Your task to perform on an android device: check the backup settings in the google photos Image 0: 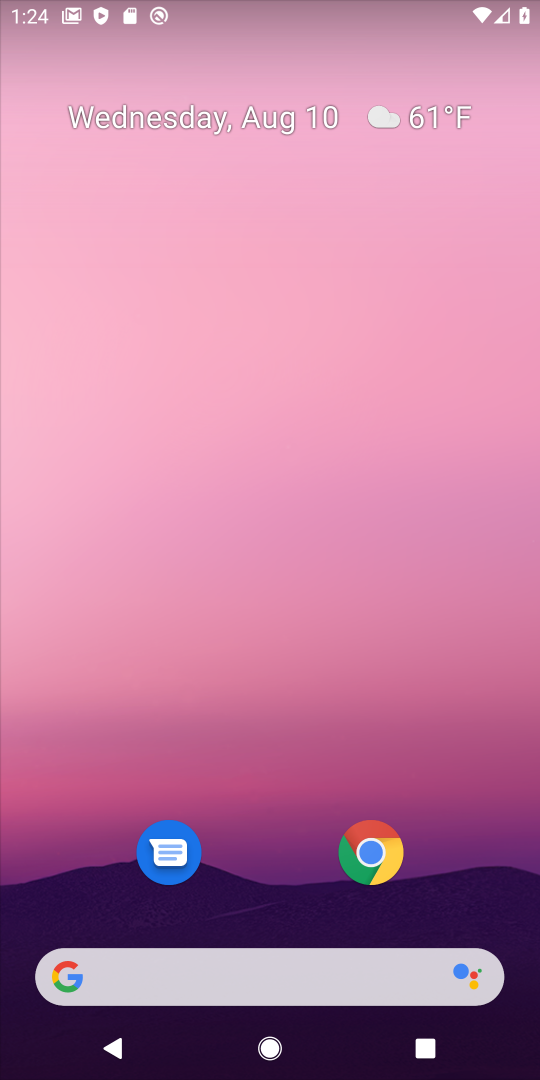
Step 0: drag from (304, 760) to (307, 54)
Your task to perform on an android device: check the backup settings in the google photos Image 1: 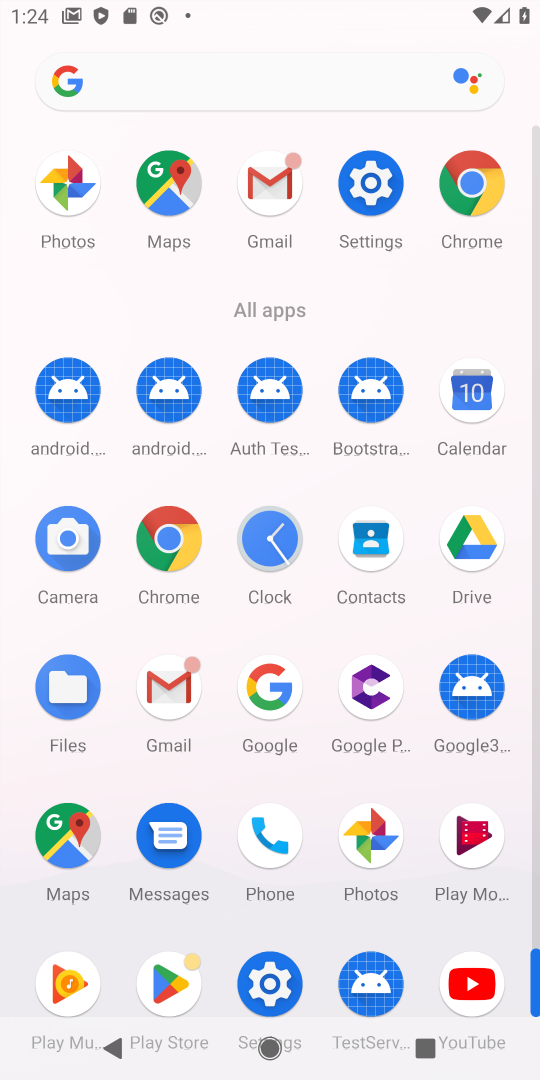
Step 1: click (361, 835)
Your task to perform on an android device: check the backup settings in the google photos Image 2: 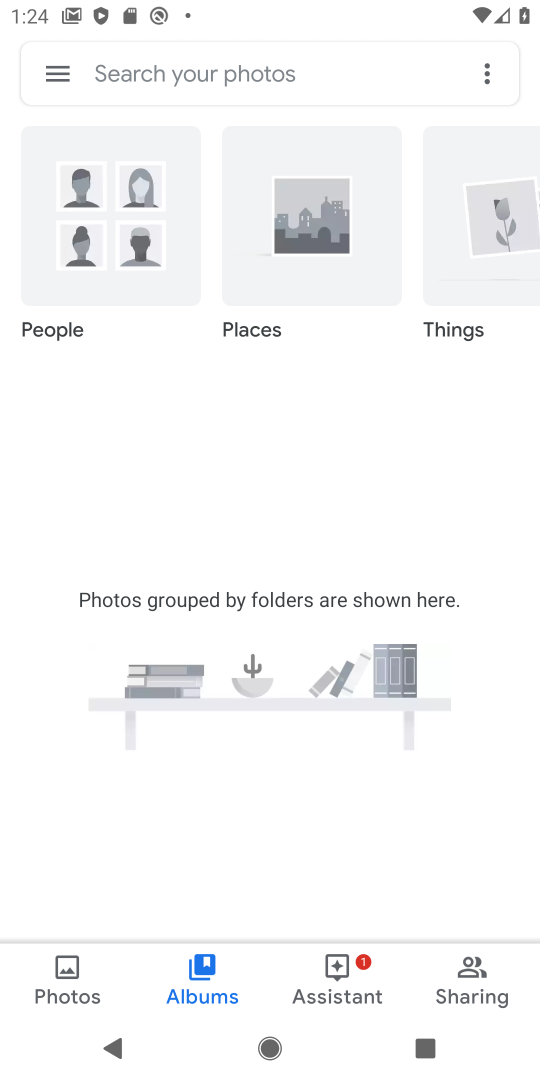
Step 2: click (51, 65)
Your task to perform on an android device: check the backup settings in the google photos Image 3: 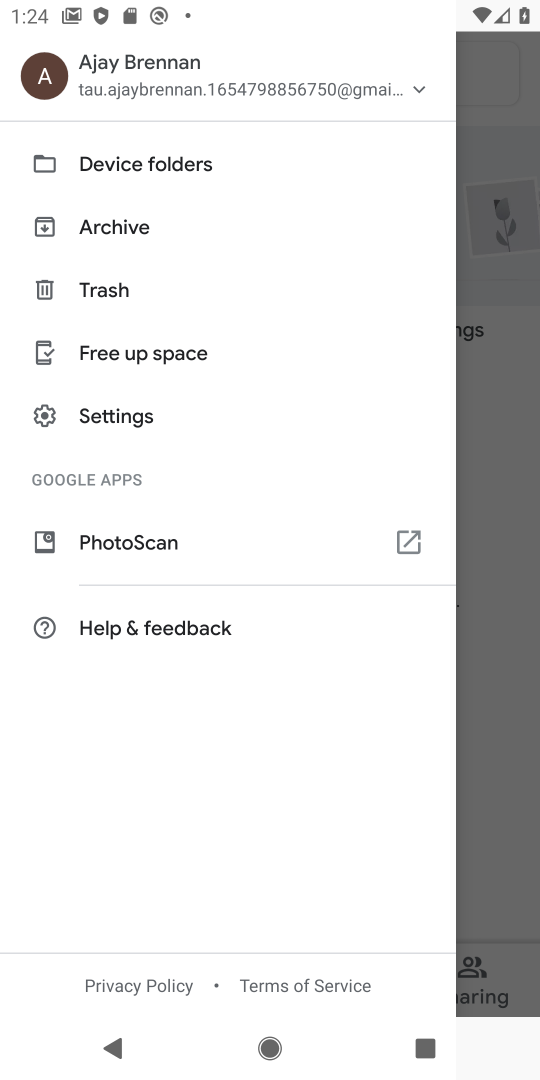
Step 3: click (130, 417)
Your task to perform on an android device: check the backup settings in the google photos Image 4: 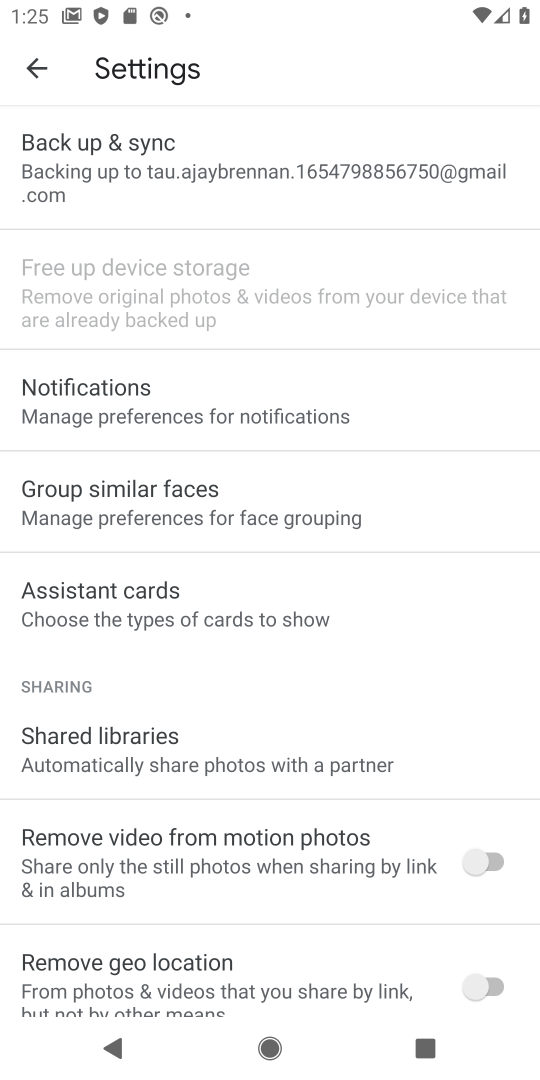
Step 4: click (154, 160)
Your task to perform on an android device: check the backup settings in the google photos Image 5: 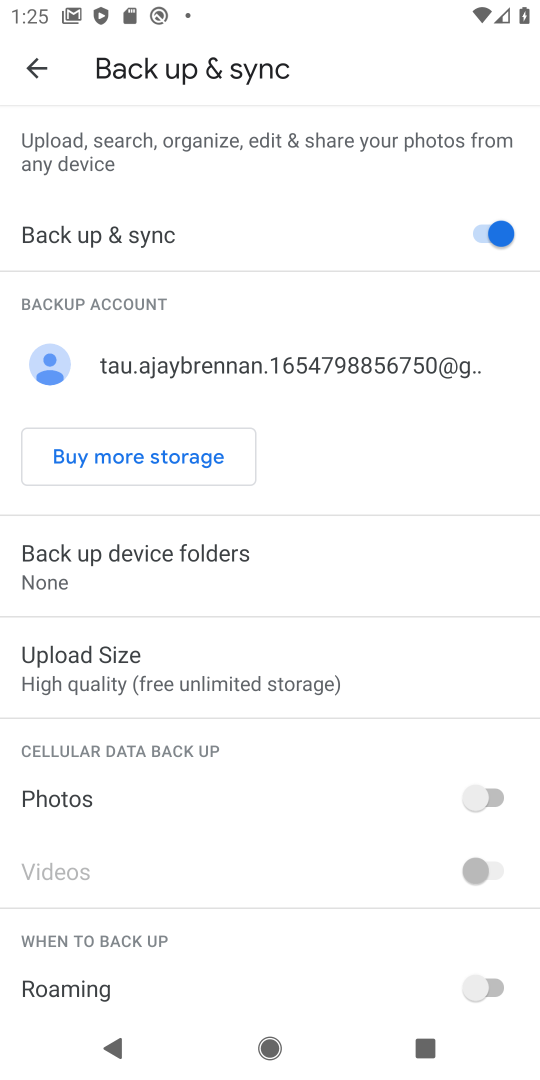
Step 5: task complete